Your task to perform on an android device: Search for sushi restaurants on Maps Image 0: 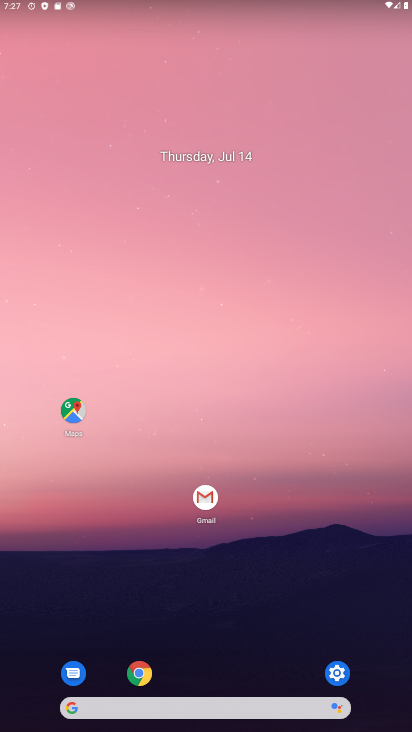
Step 0: press home button
Your task to perform on an android device: Search for sushi restaurants on Maps Image 1: 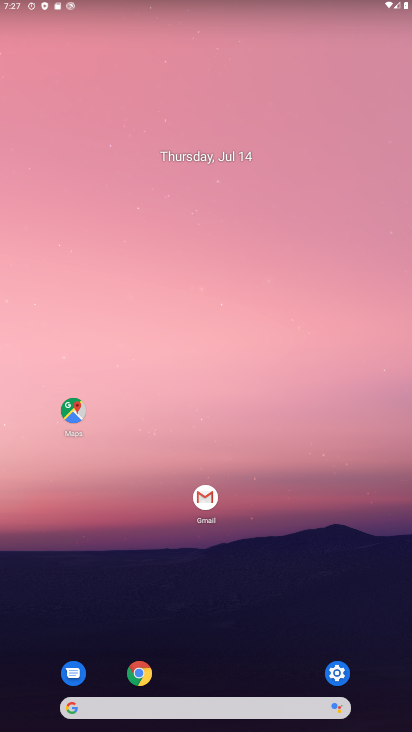
Step 1: click (66, 411)
Your task to perform on an android device: Search for sushi restaurants on Maps Image 2: 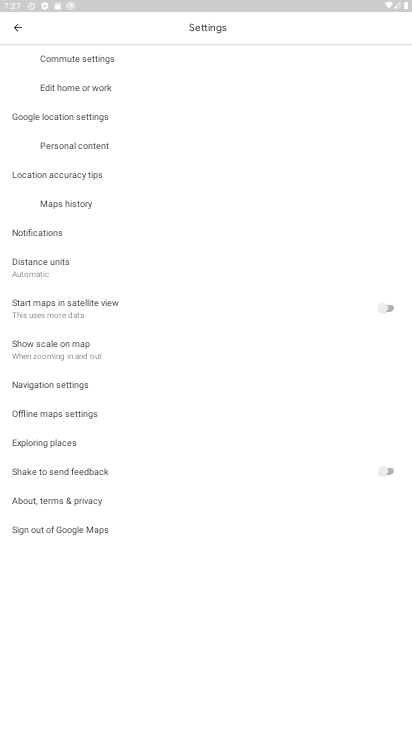
Step 2: click (23, 27)
Your task to perform on an android device: Search for sushi restaurants on Maps Image 3: 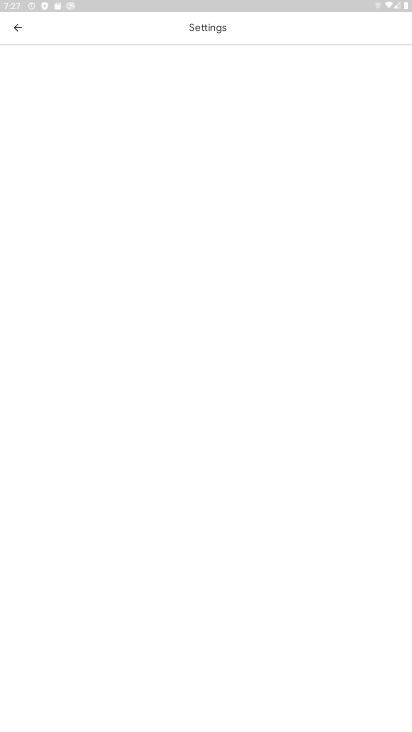
Step 3: click (12, 30)
Your task to perform on an android device: Search for sushi restaurants on Maps Image 4: 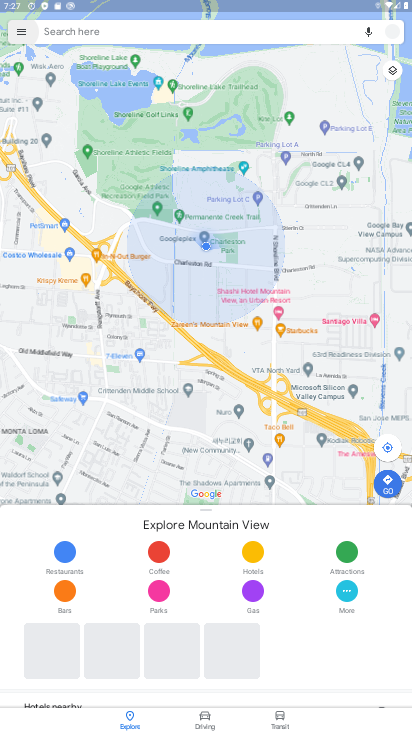
Step 4: click (86, 33)
Your task to perform on an android device: Search for sushi restaurants on Maps Image 5: 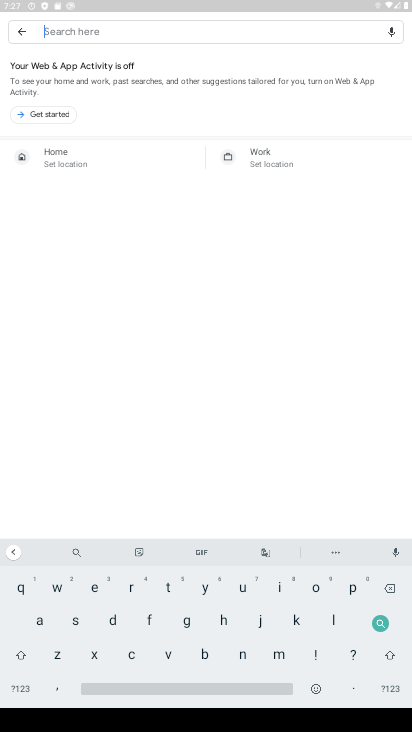
Step 5: click (90, 35)
Your task to perform on an android device: Search for sushi restaurants on Maps Image 6: 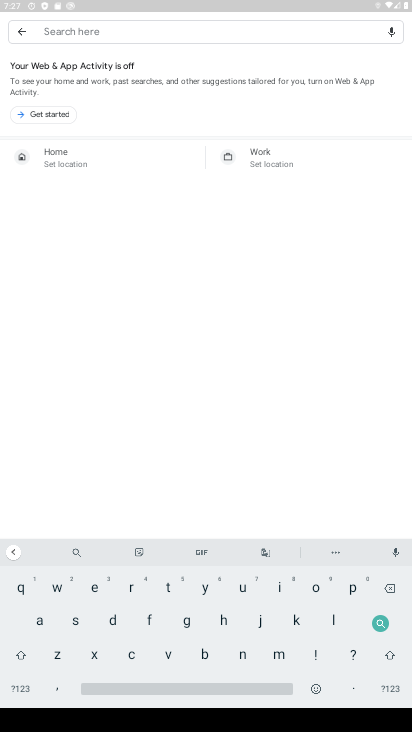
Step 6: click (72, 620)
Your task to perform on an android device: Search for sushi restaurants on Maps Image 7: 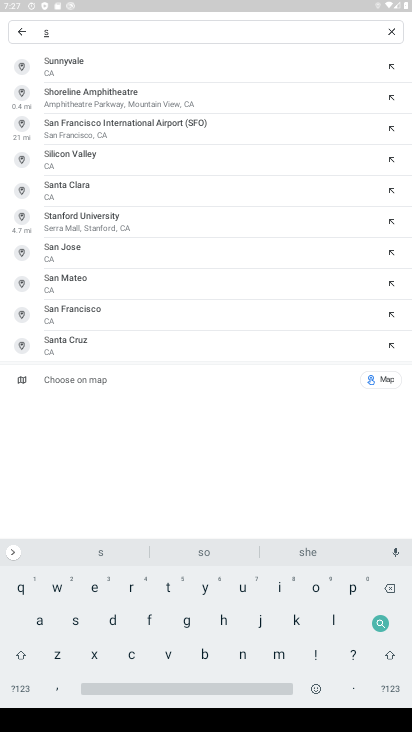
Step 7: click (239, 587)
Your task to perform on an android device: Search for sushi restaurants on Maps Image 8: 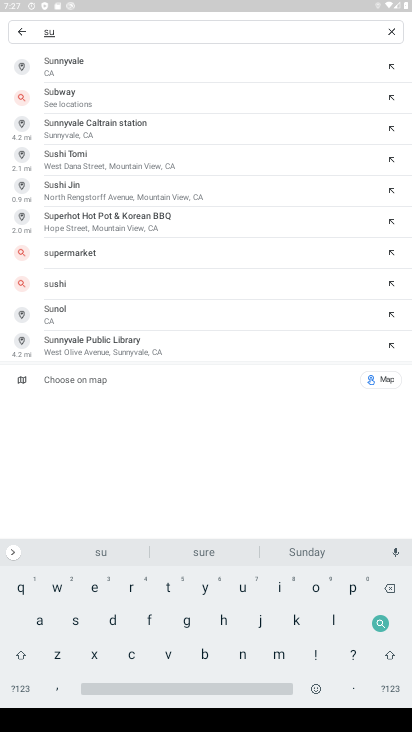
Step 8: click (74, 622)
Your task to perform on an android device: Search for sushi restaurants on Maps Image 9: 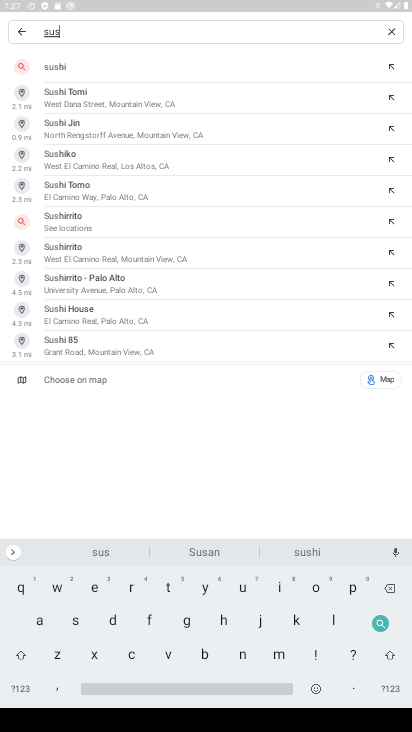
Step 9: click (220, 624)
Your task to perform on an android device: Search for sushi restaurants on Maps Image 10: 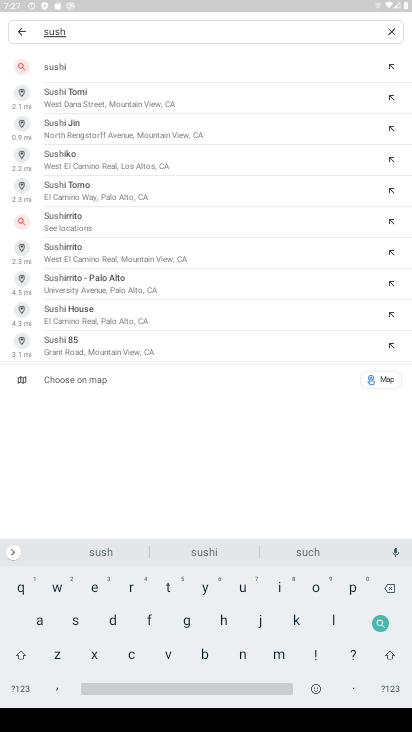
Step 10: click (282, 585)
Your task to perform on an android device: Search for sushi restaurants on Maps Image 11: 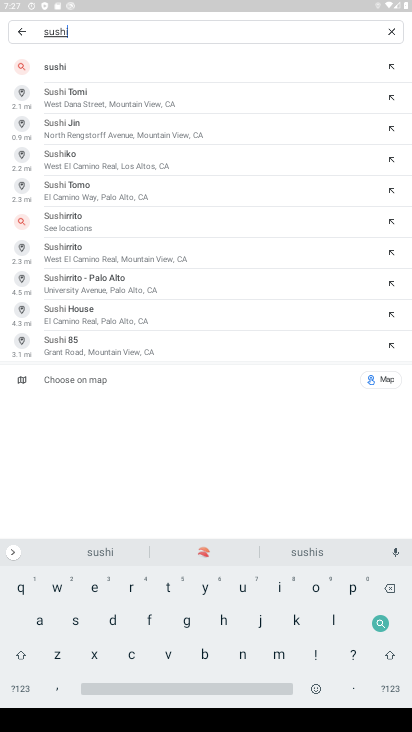
Step 11: click (106, 550)
Your task to perform on an android device: Search for sushi restaurants on Maps Image 12: 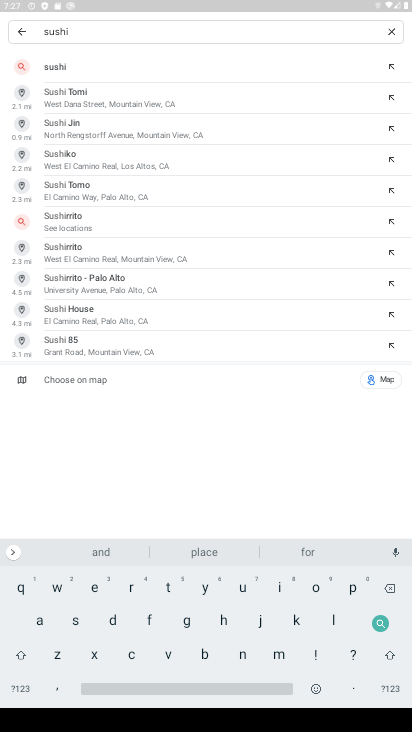
Step 12: click (124, 584)
Your task to perform on an android device: Search for sushi restaurants on Maps Image 13: 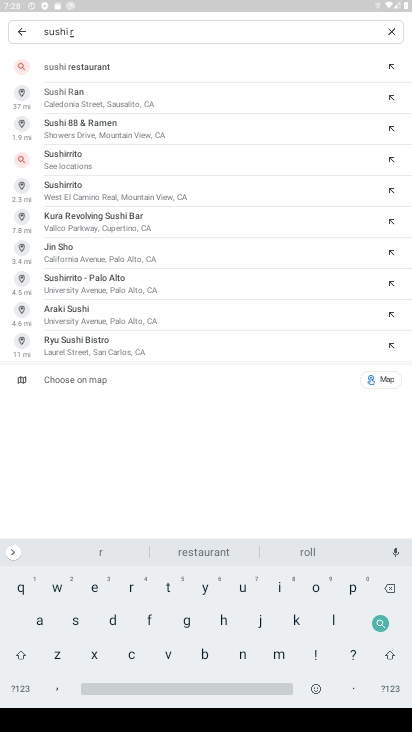
Step 13: click (87, 63)
Your task to perform on an android device: Search for sushi restaurants on Maps Image 14: 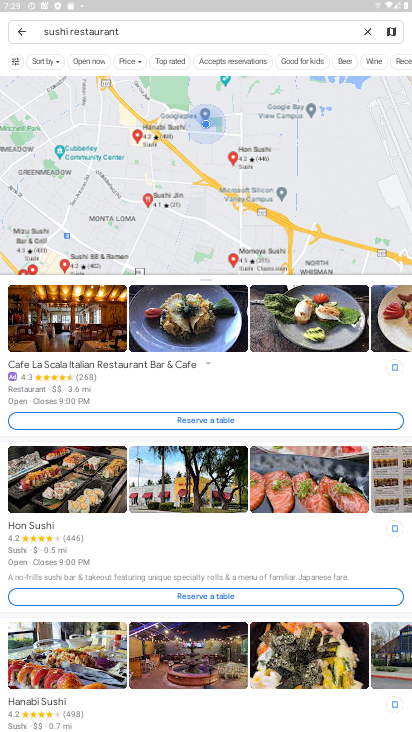
Step 14: task complete